Your task to perform on an android device: View the shopping cart on ebay. Add logitech g pro to the cart on ebay, then select checkout. Image 0: 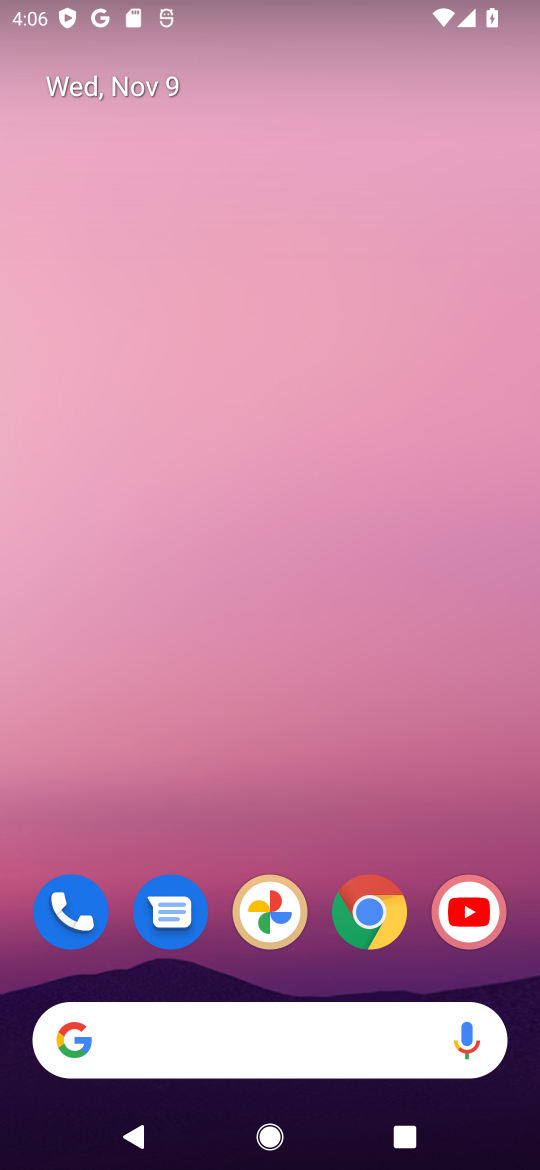
Step 0: click (369, 912)
Your task to perform on an android device: View the shopping cart on ebay. Add logitech g pro to the cart on ebay, then select checkout. Image 1: 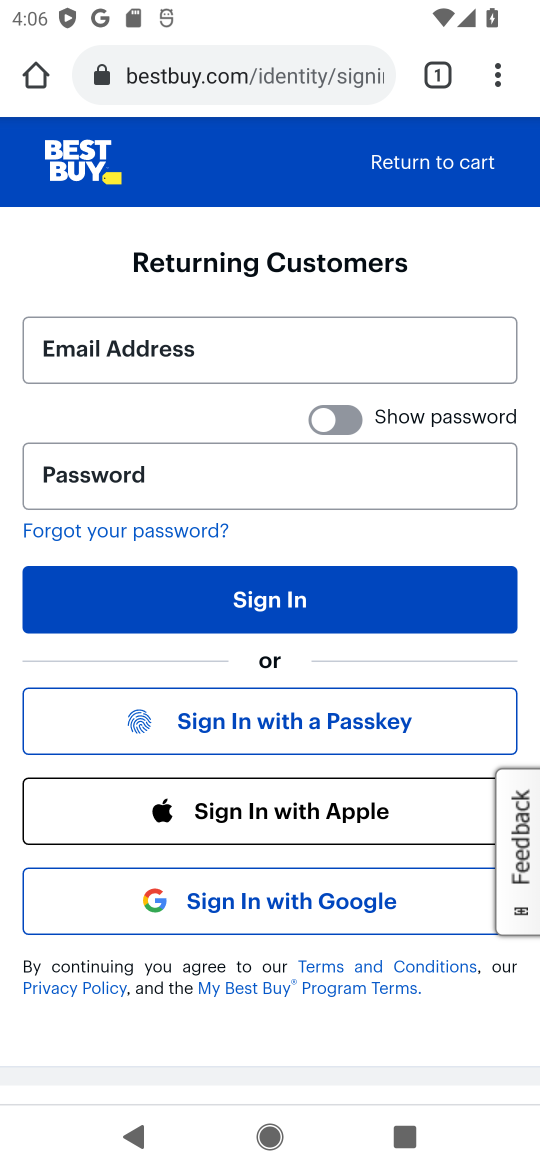
Step 1: click (253, 69)
Your task to perform on an android device: View the shopping cart on ebay. Add logitech g pro to the cart on ebay, then select checkout. Image 2: 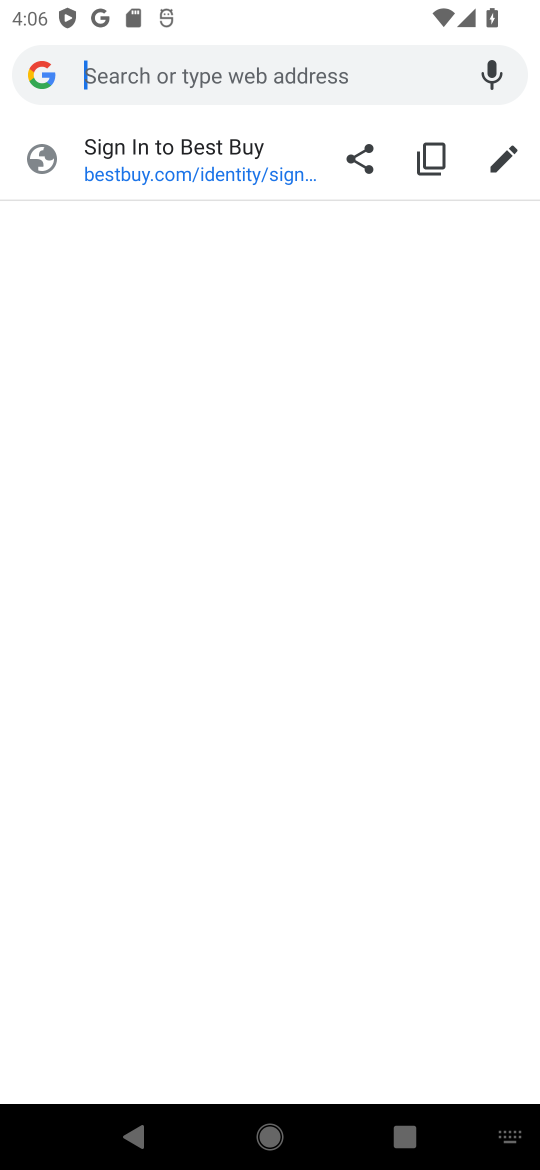
Step 2: type "ebay"
Your task to perform on an android device: View the shopping cart on ebay. Add logitech g pro to the cart on ebay, then select checkout. Image 3: 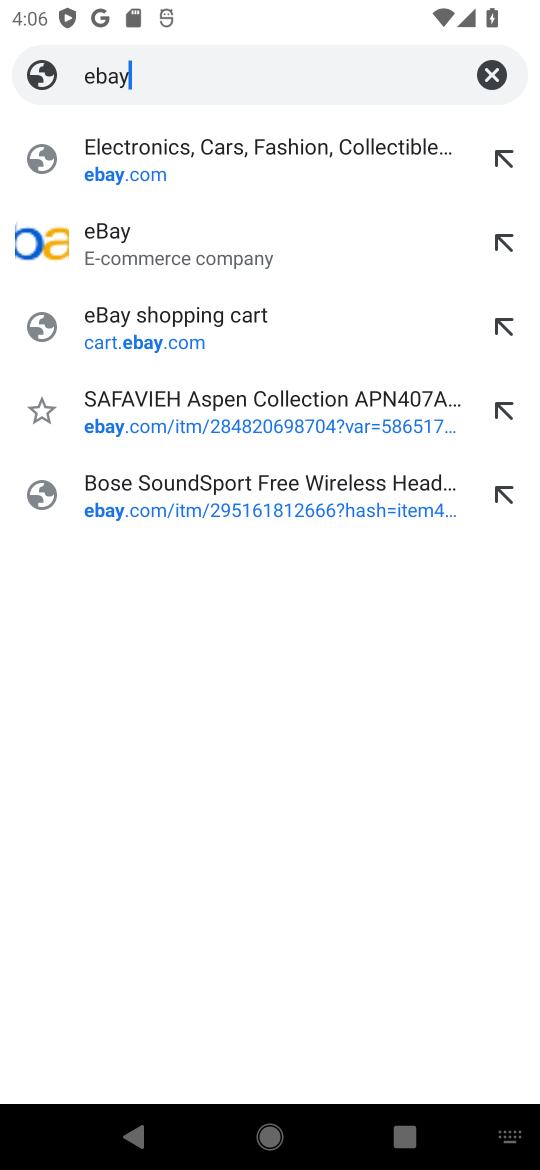
Step 3: click (103, 246)
Your task to perform on an android device: View the shopping cart on ebay. Add logitech g pro to the cart on ebay, then select checkout. Image 4: 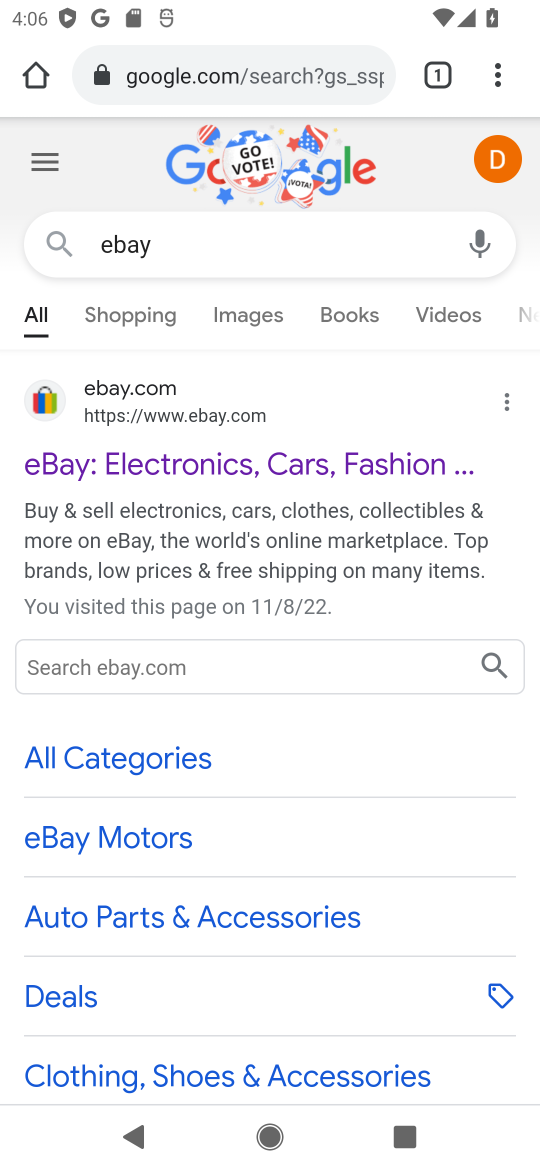
Step 4: click (111, 456)
Your task to perform on an android device: View the shopping cart on ebay. Add logitech g pro to the cart on ebay, then select checkout. Image 5: 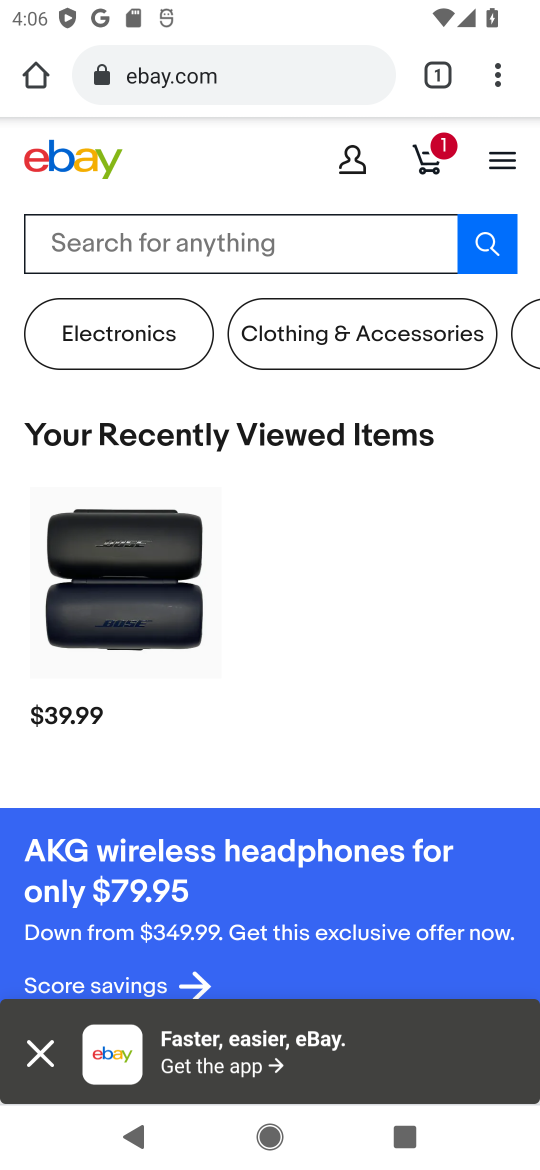
Step 5: click (434, 156)
Your task to perform on an android device: View the shopping cart on ebay. Add logitech g pro to the cart on ebay, then select checkout. Image 6: 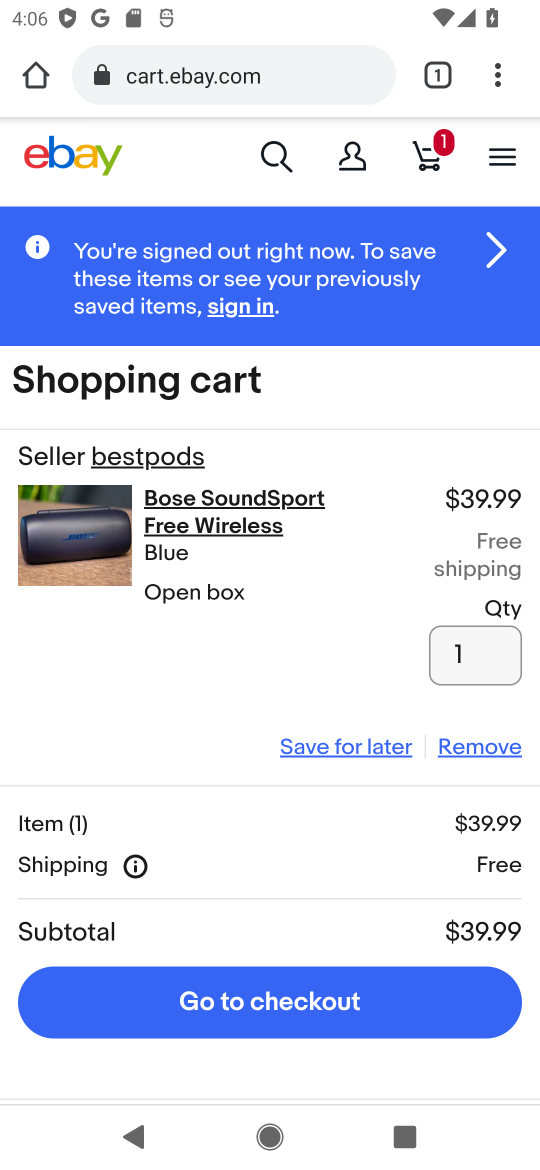
Step 6: click (434, 156)
Your task to perform on an android device: View the shopping cart on ebay. Add logitech g pro to the cart on ebay, then select checkout. Image 7: 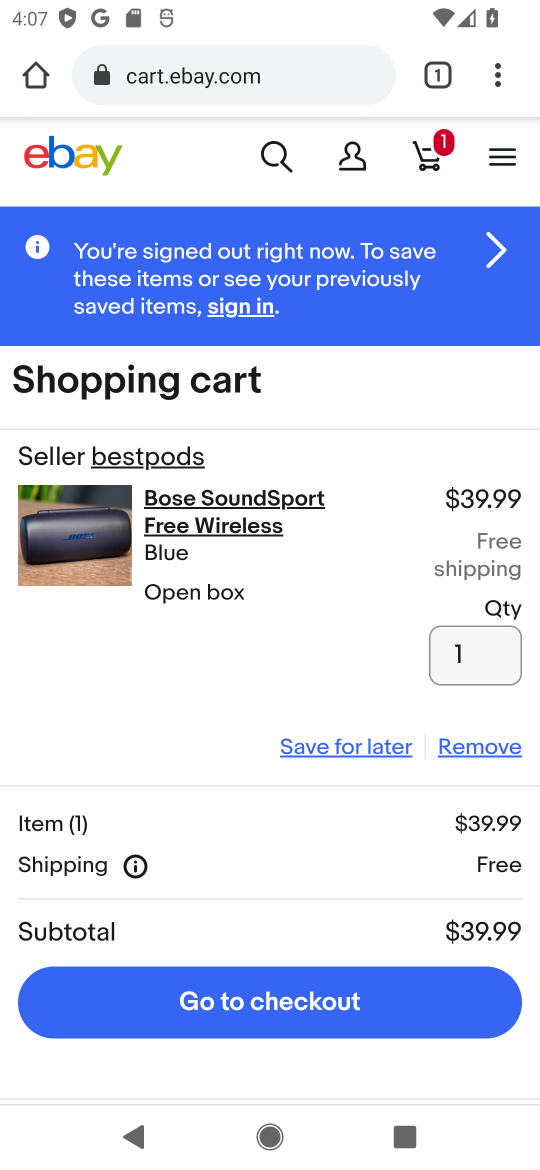
Step 7: click (280, 160)
Your task to perform on an android device: View the shopping cart on ebay. Add logitech g pro to the cart on ebay, then select checkout. Image 8: 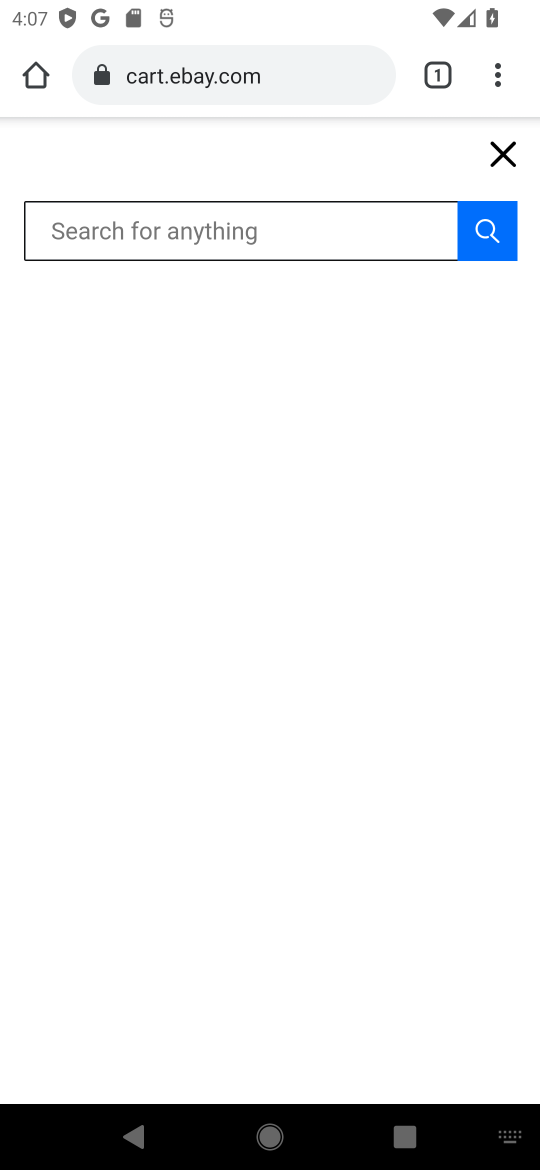
Step 8: type "logitech g pro"
Your task to perform on an android device: View the shopping cart on ebay. Add logitech g pro to the cart on ebay, then select checkout. Image 9: 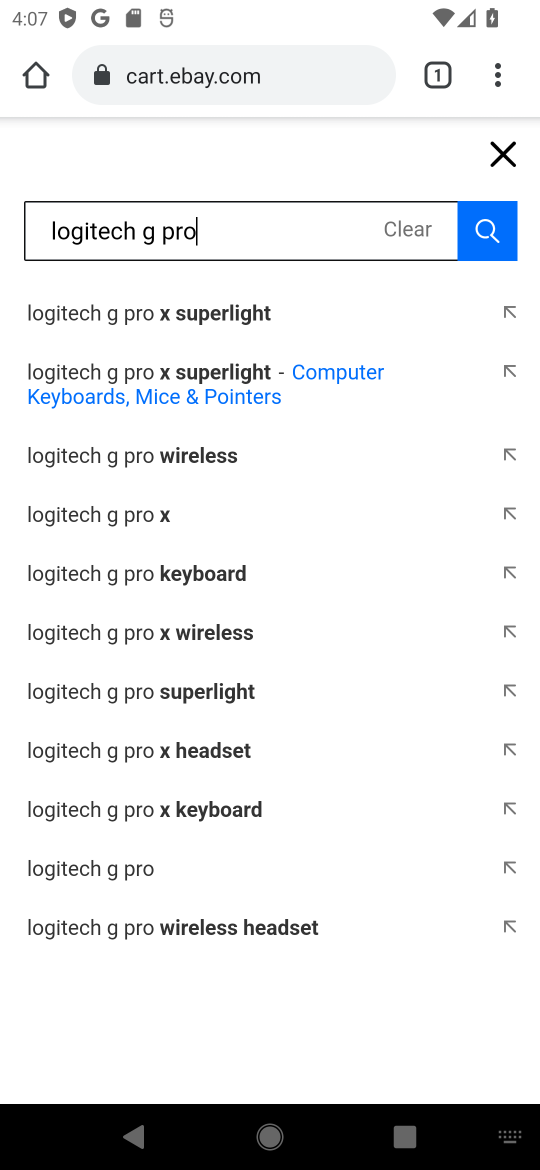
Step 9: click (125, 877)
Your task to perform on an android device: View the shopping cart on ebay. Add logitech g pro to the cart on ebay, then select checkout. Image 10: 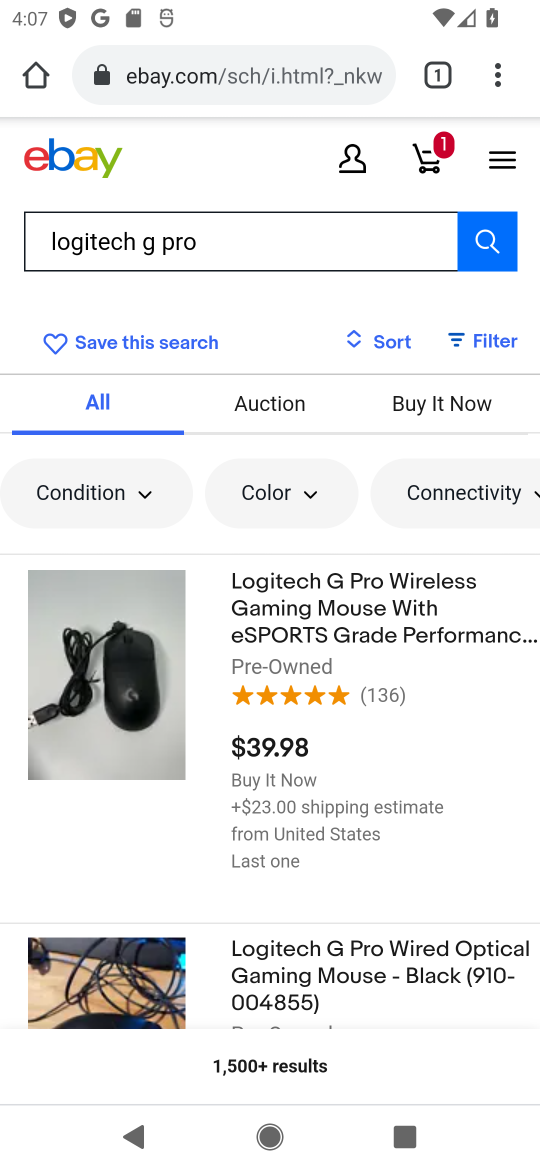
Step 10: click (362, 634)
Your task to perform on an android device: View the shopping cart on ebay. Add logitech g pro to the cart on ebay, then select checkout. Image 11: 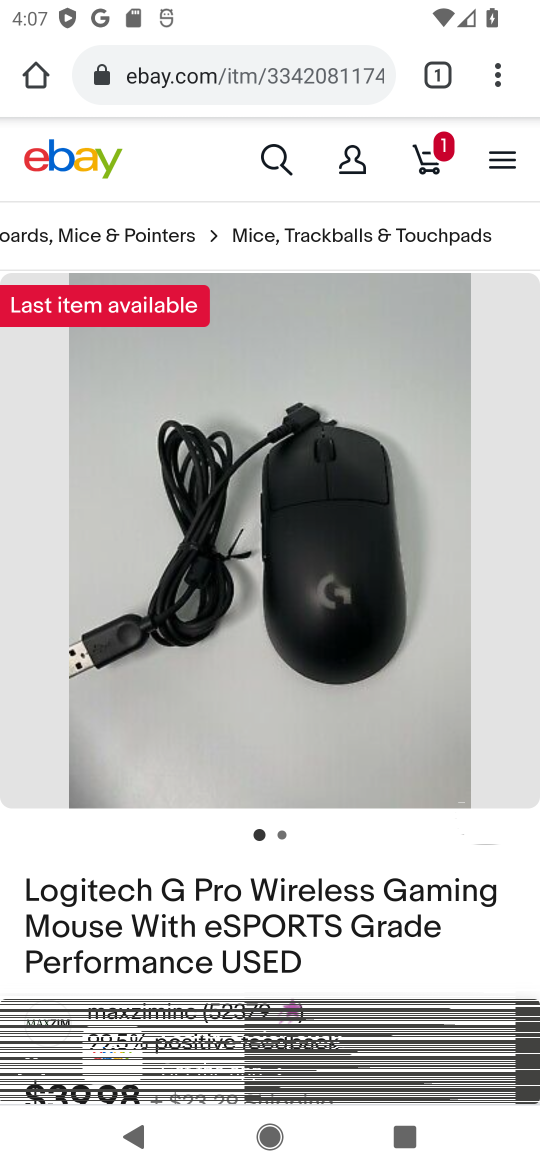
Step 11: drag from (376, 948) to (418, 561)
Your task to perform on an android device: View the shopping cart on ebay. Add logitech g pro to the cart on ebay, then select checkout. Image 12: 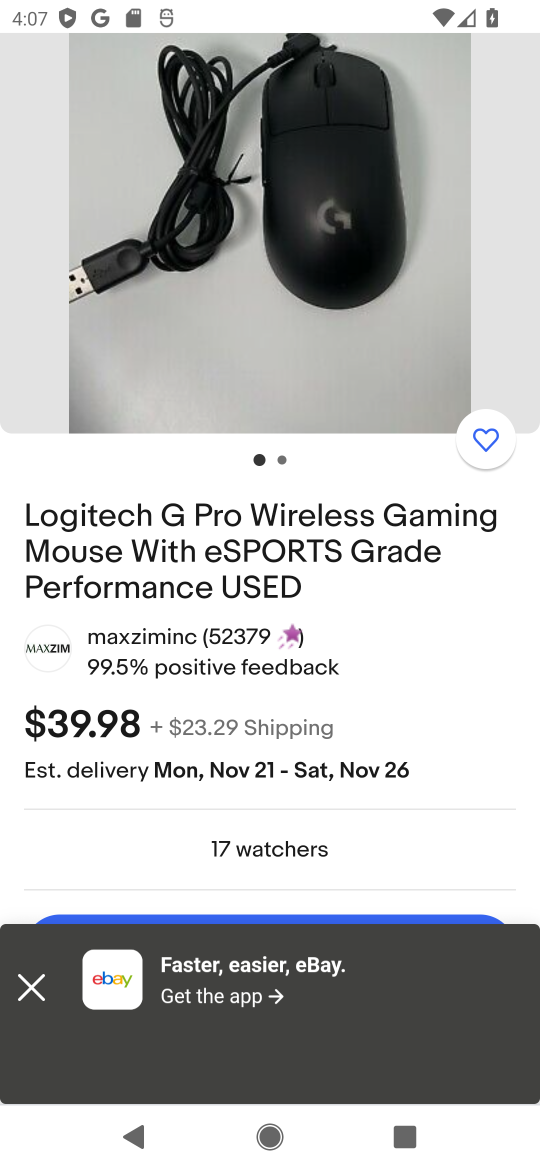
Step 12: drag from (376, 833) to (408, 427)
Your task to perform on an android device: View the shopping cart on ebay. Add logitech g pro to the cart on ebay, then select checkout. Image 13: 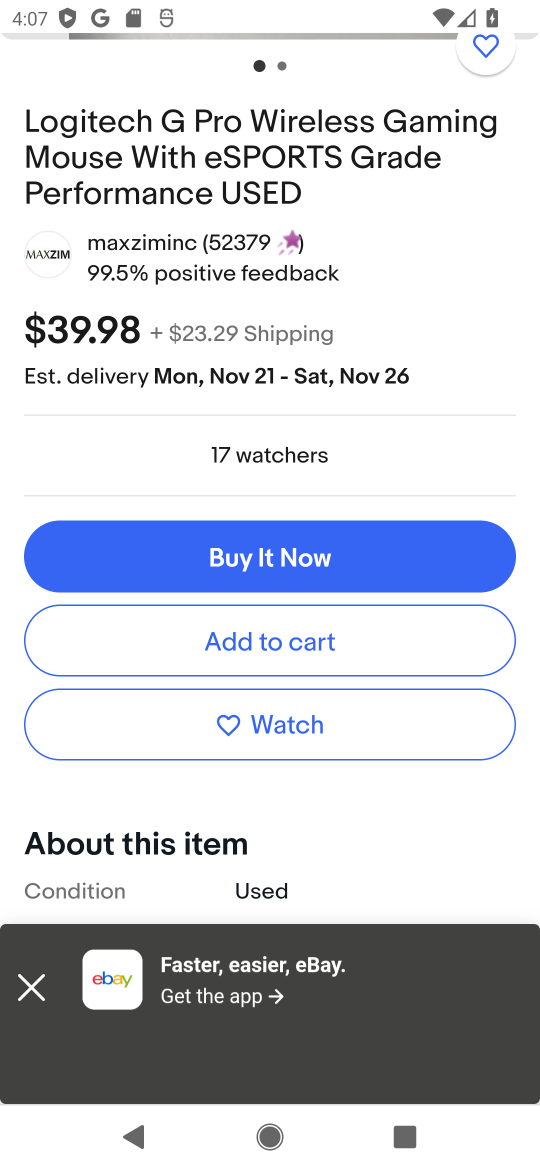
Step 13: click (278, 646)
Your task to perform on an android device: View the shopping cart on ebay. Add logitech g pro to the cart on ebay, then select checkout. Image 14: 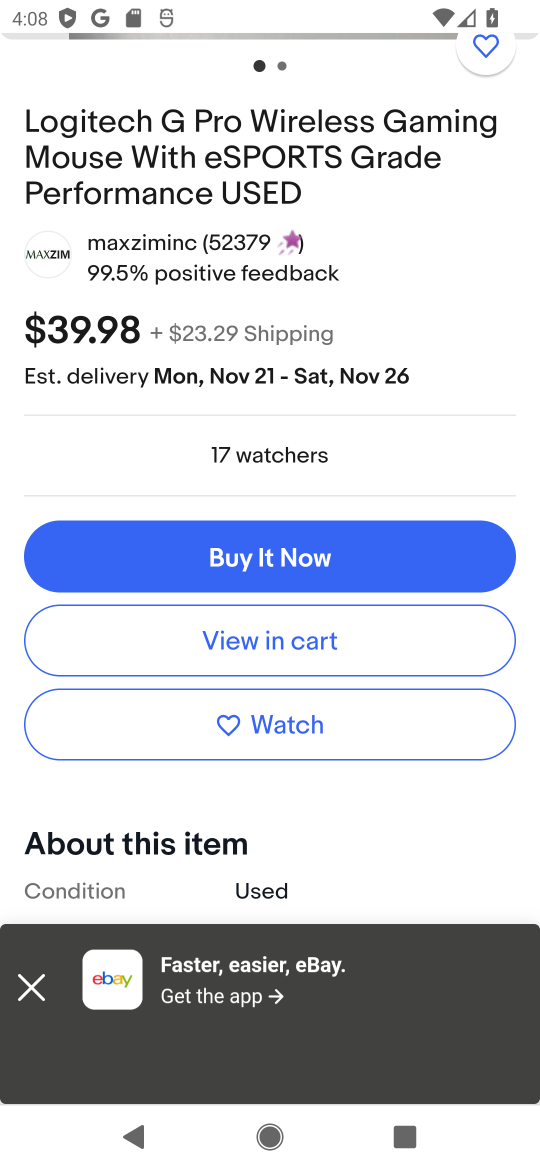
Step 14: click (278, 646)
Your task to perform on an android device: View the shopping cart on ebay. Add logitech g pro to the cart on ebay, then select checkout. Image 15: 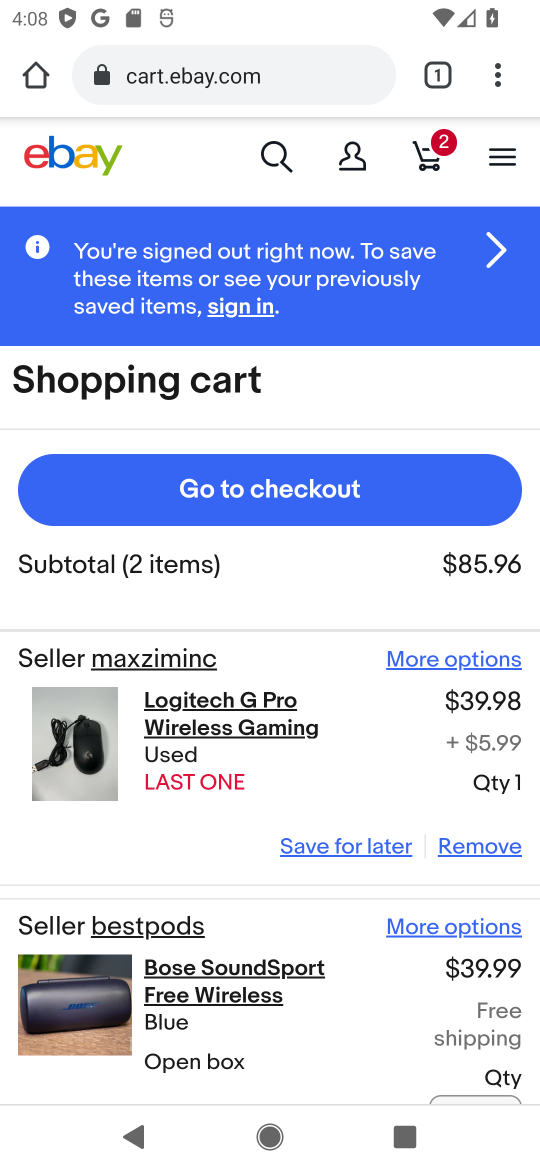
Step 15: click (304, 486)
Your task to perform on an android device: View the shopping cart on ebay. Add logitech g pro to the cart on ebay, then select checkout. Image 16: 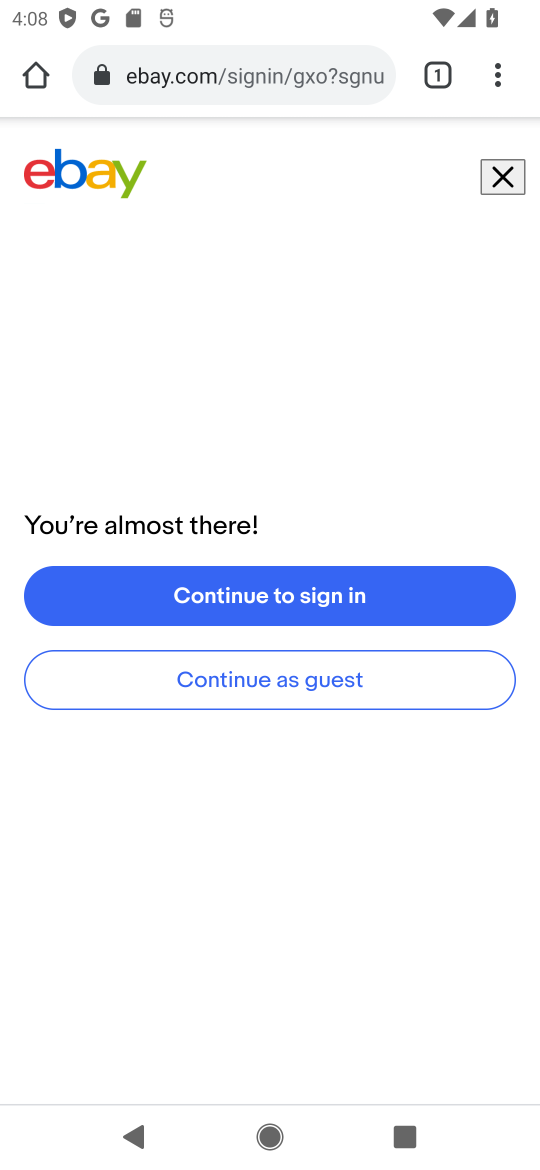
Step 16: task complete